Your task to perform on an android device: check data usage Image 0: 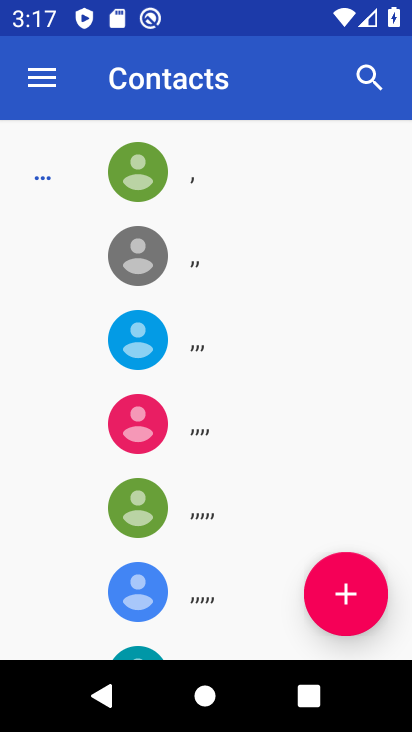
Step 0: press back button
Your task to perform on an android device: check data usage Image 1: 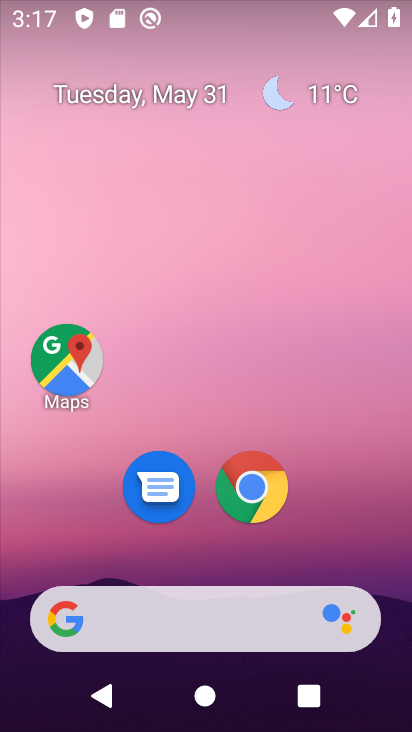
Step 1: drag from (326, 536) to (277, 151)
Your task to perform on an android device: check data usage Image 2: 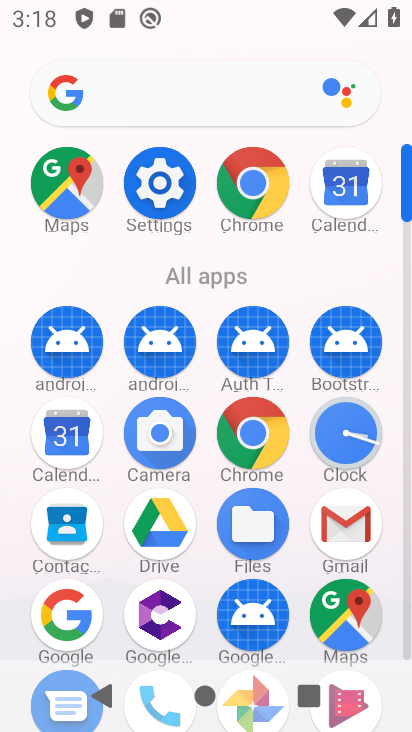
Step 2: click (163, 181)
Your task to perform on an android device: check data usage Image 3: 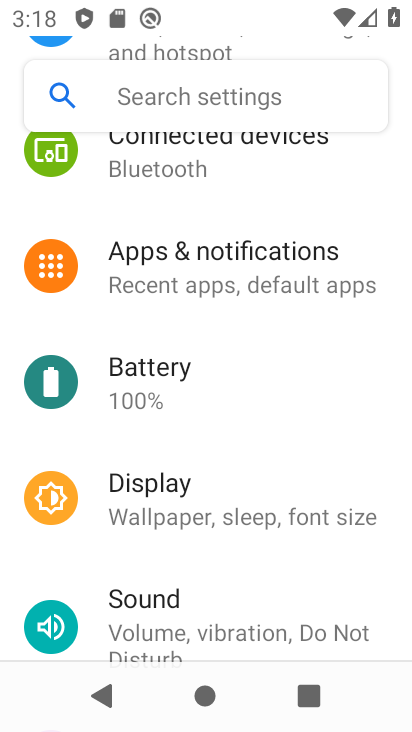
Step 3: drag from (241, 196) to (215, 288)
Your task to perform on an android device: check data usage Image 4: 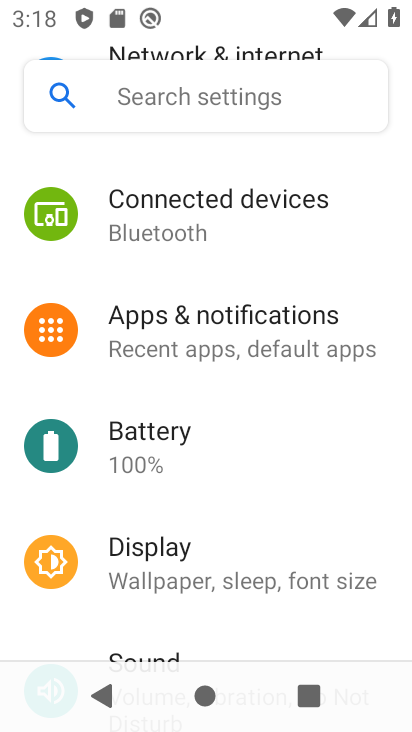
Step 4: drag from (213, 167) to (219, 287)
Your task to perform on an android device: check data usage Image 5: 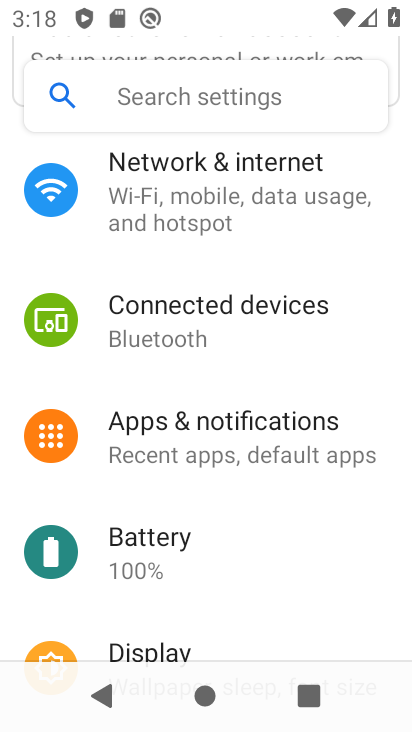
Step 5: drag from (269, 235) to (270, 291)
Your task to perform on an android device: check data usage Image 6: 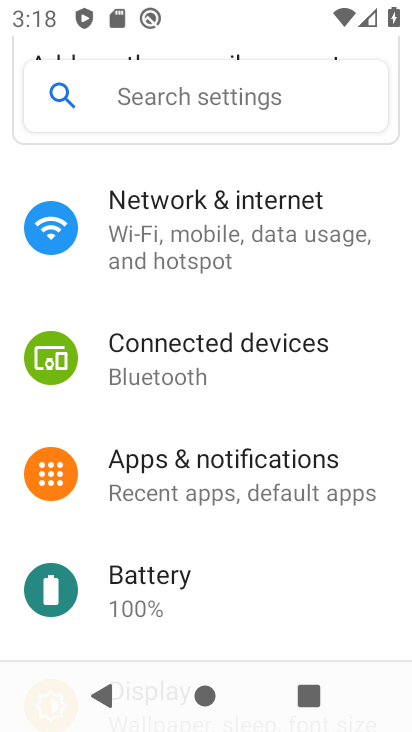
Step 6: click (239, 205)
Your task to perform on an android device: check data usage Image 7: 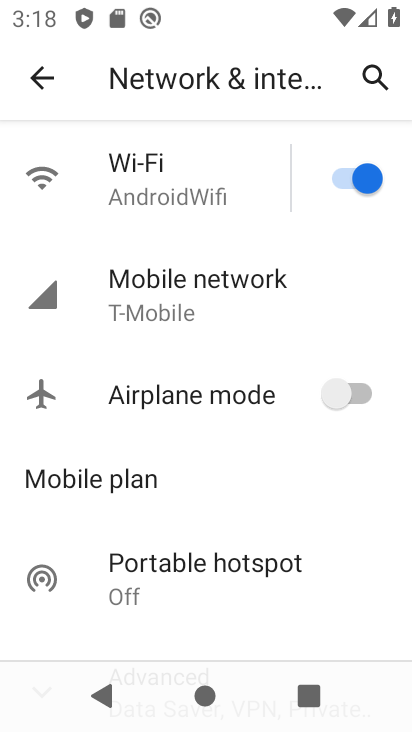
Step 7: click (136, 288)
Your task to perform on an android device: check data usage Image 8: 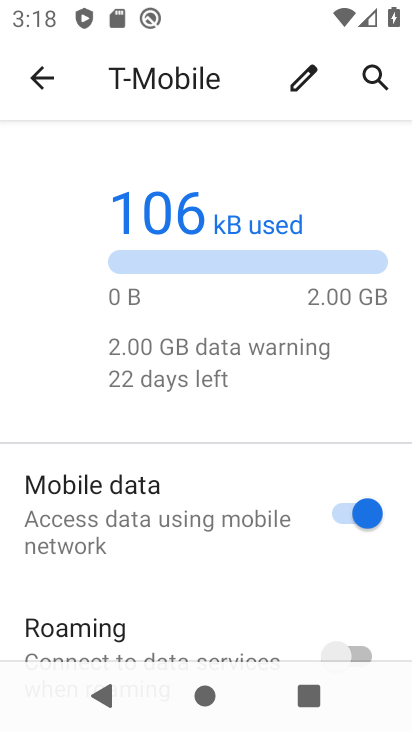
Step 8: task complete